Your task to perform on an android device: delete the emails in spam in the gmail app Image 0: 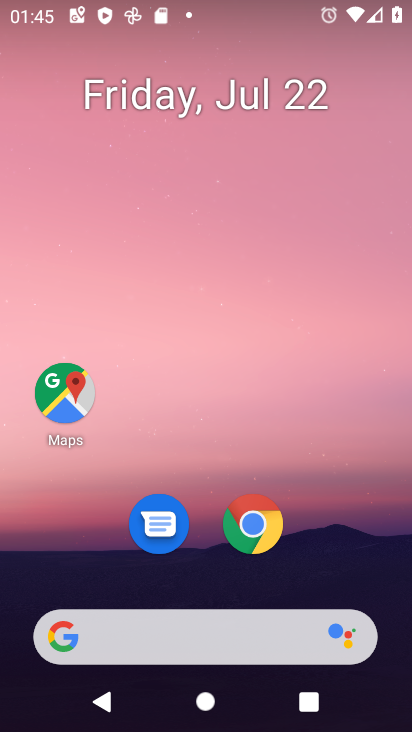
Step 0: press home button
Your task to perform on an android device: delete the emails in spam in the gmail app Image 1: 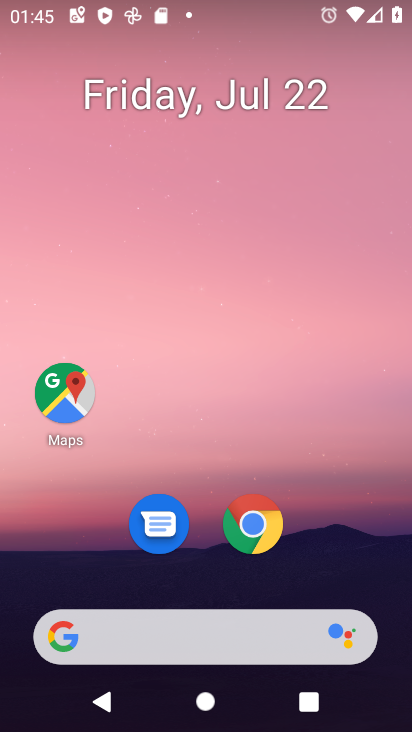
Step 1: drag from (197, 646) to (275, 114)
Your task to perform on an android device: delete the emails in spam in the gmail app Image 2: 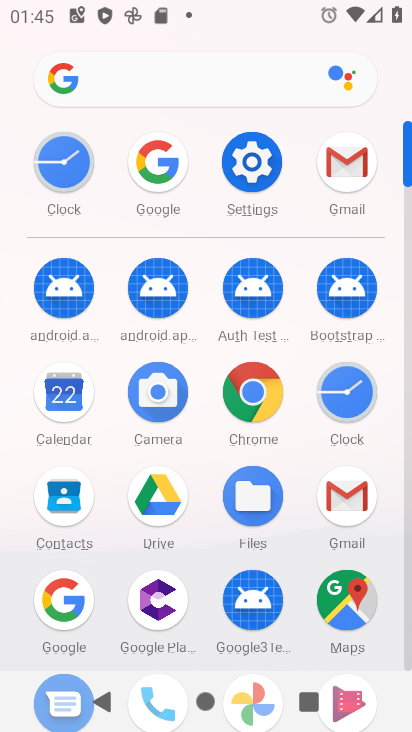
Step 2: click (336, 173)
Your task to perform on an android device: delete the emails in spam in the gmail app Image 3: 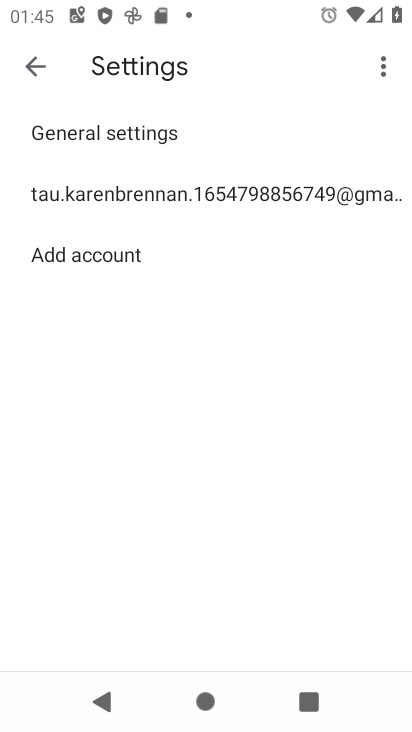
Step 3: click (35, 73)
Your task to perform on an android device: delete the emails in spam in the gmail app Image 4: 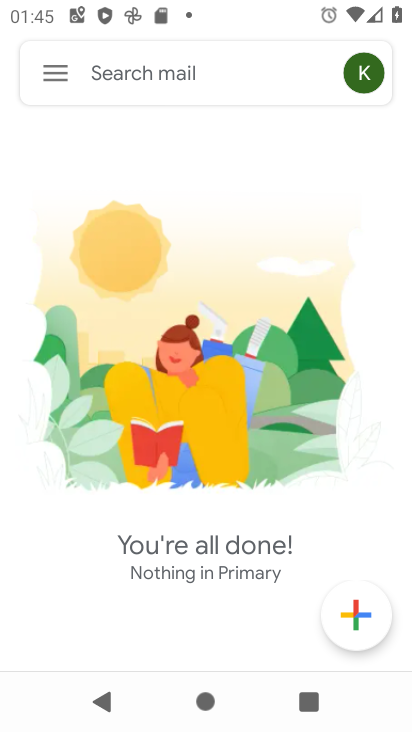
Step 4: click (51, 72)
Your task to perform on an android device: delete the emails in spam in the gmail app Image 5: 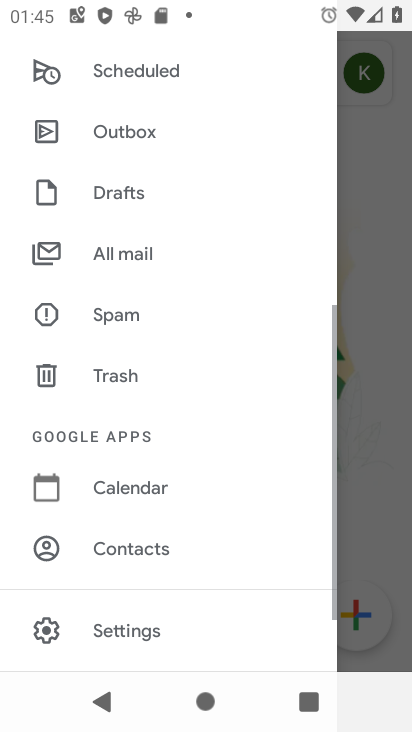
Step 5: click (128, 316)
Your task to perform on an android device: delete the emails in spam in the gmail app Image 6: 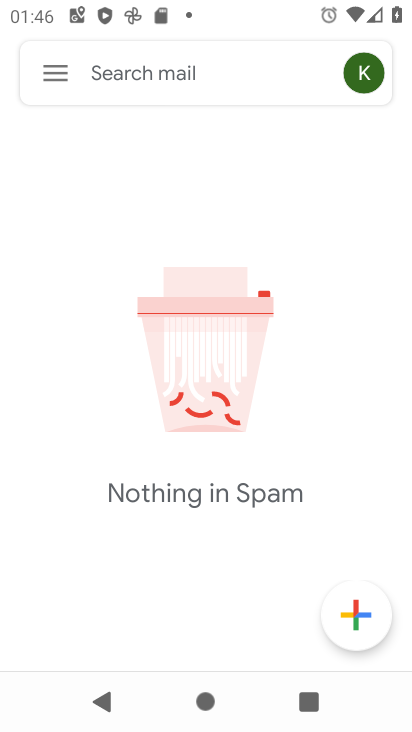
Step 6: task complete